Your task to perform on an android device: Open the Play Movies app and select the watchlist tab. Image 0: 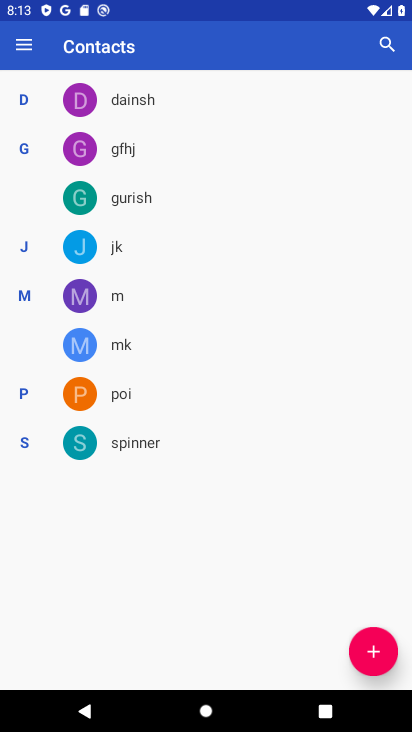
Step 0: press home button
Your task to perform on an android device: Open the Play Movies app and select the watchlist tab. Image 1: 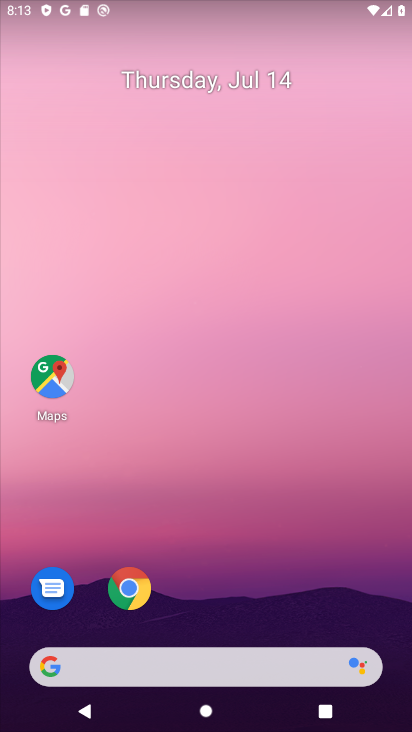
Step 1: drag from (300, 600) to (314, 282)
Your task to perform on an android device: Open the Play Movies app and select the watchlist tab. Image 2: 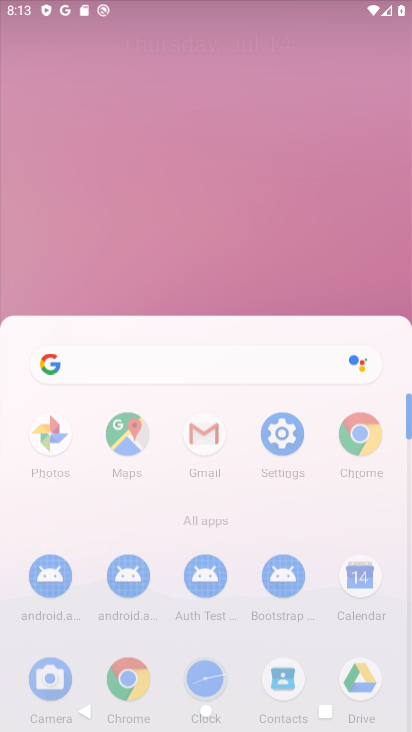
Step 2: click (314, 282)
Your task to perform on an android device: Open the Play Movies app and select the watchlist tab. Image 3: 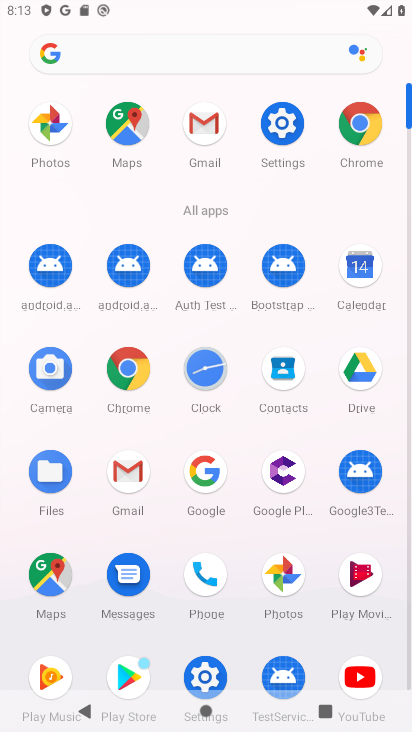
Step 3: click (348, 589)
Your task to perform on an android device: Open the Play Movies app and select the watchlist tab. Image 4: 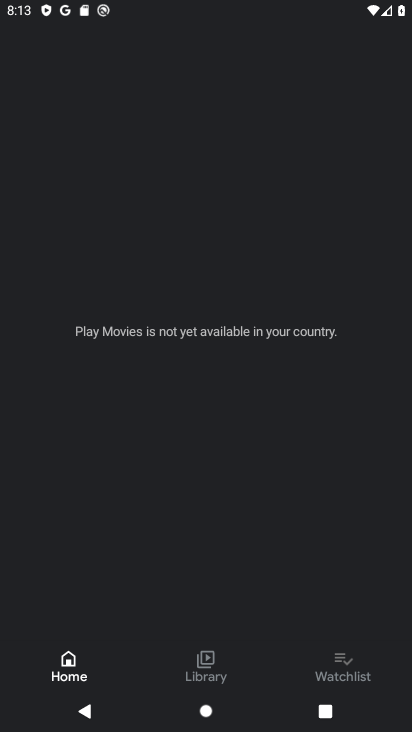
Step 4: click (348, 661)
Your task to perform on an android device: Open the Play Movies app and select the watchlist tab. Image 5: 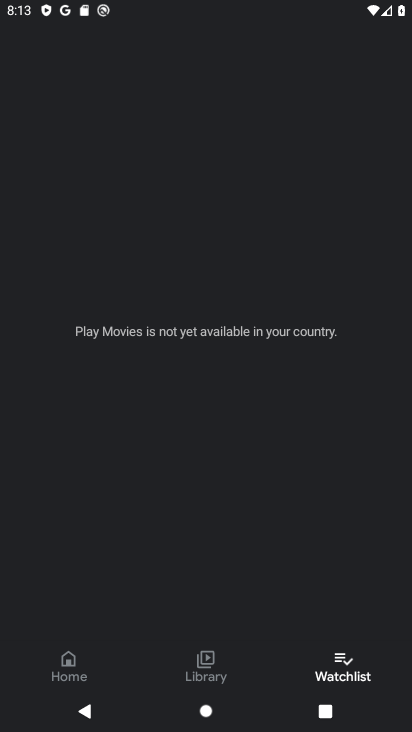
Step 5: task complete